Your task to perform on an android device: Go to Maps Image 0: 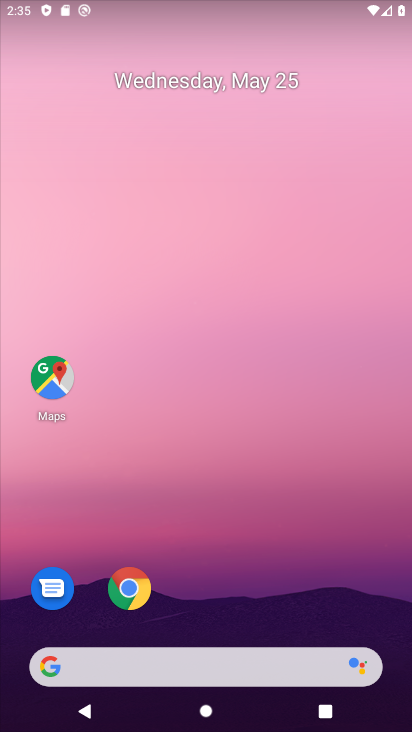
Step 0: click (60, 369)
Your task to perform on an android device: Go to Maps Image 1: 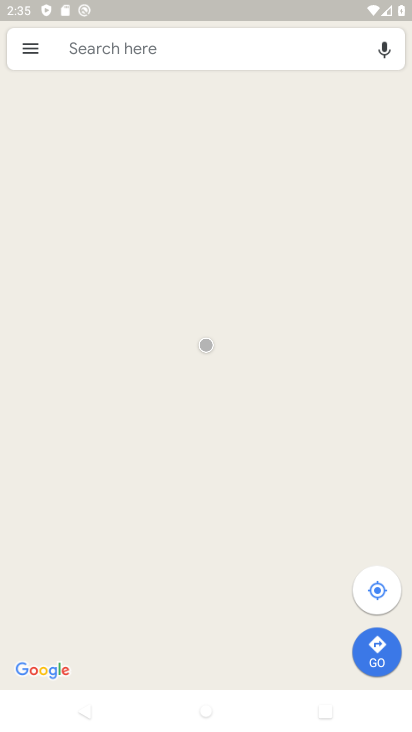
Step 1: task complete